Your task to perform on an android device: Go to eBay Image 0: 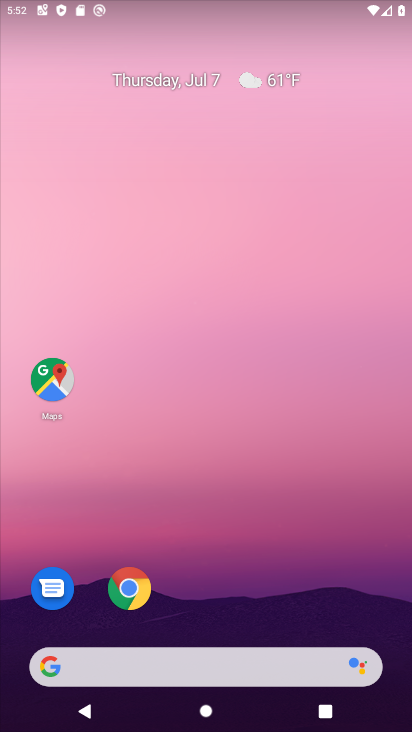
Step 0: click (128, 582)
Your task to perform on an android device: Go to eBay Image 1: 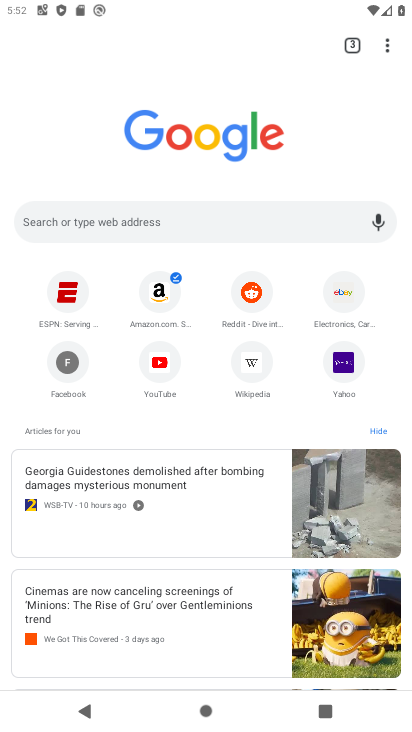
Step 1: click (346, 298)
Your task to perform on an android device: Go to eBay Image 2: 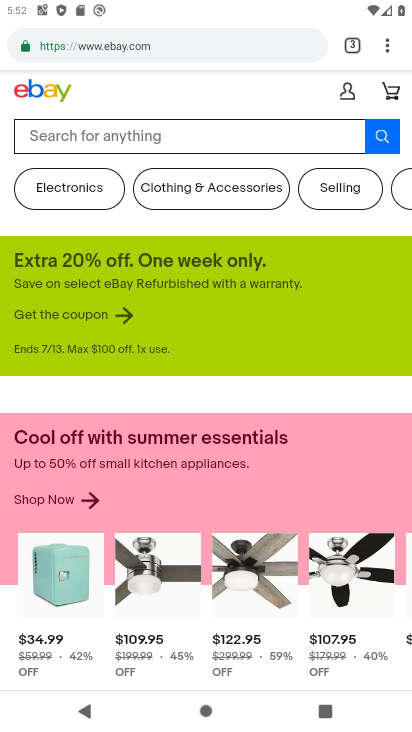
Step 2: task complete